Your task to perform on an android device: Set the phone to "Do not disturb". Image 0: 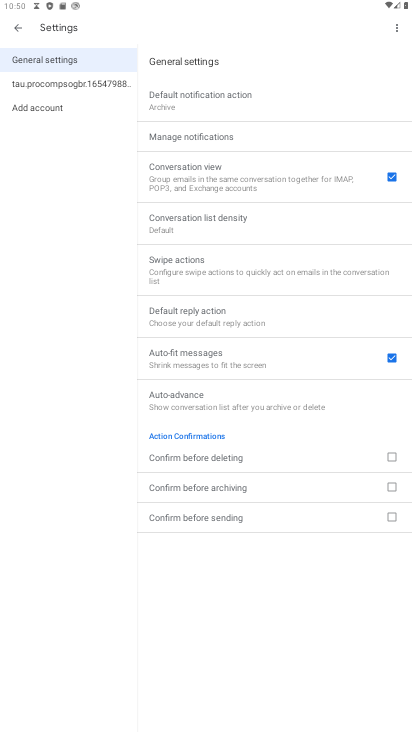
Step 0: press home button
Your task to perform on an android device: Set the phone to "Do not disturb". Image 1: 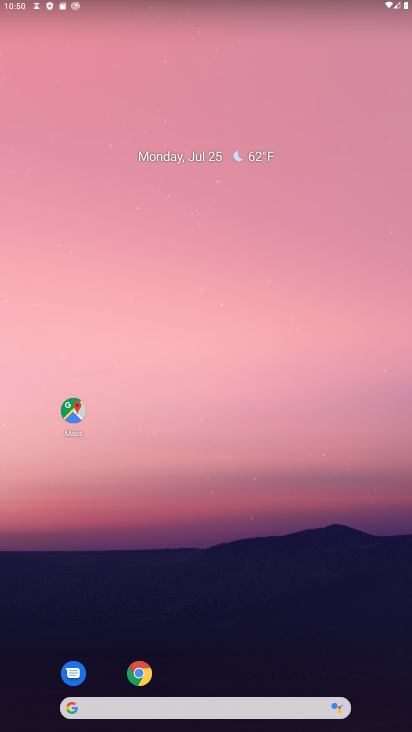
Step 1: drag from (232, 1) to (216, 443)
Your task to perform on an android device: Set the phone to "Do not disturb". Image 2: 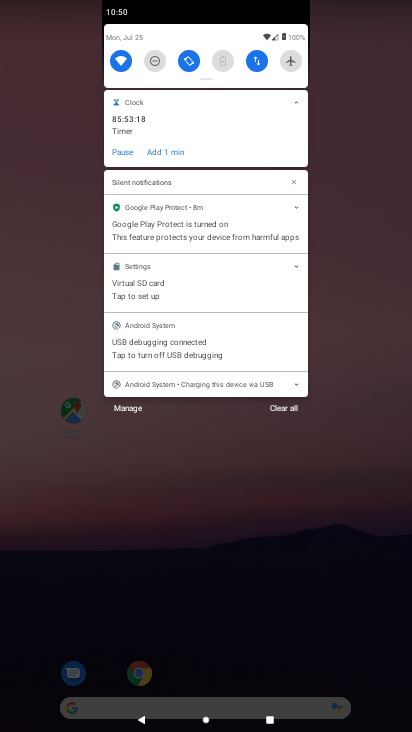
Step 2: click (154, 60)
Your task to perform on an android device: Set the phone to "Do not disturb". Image 3: 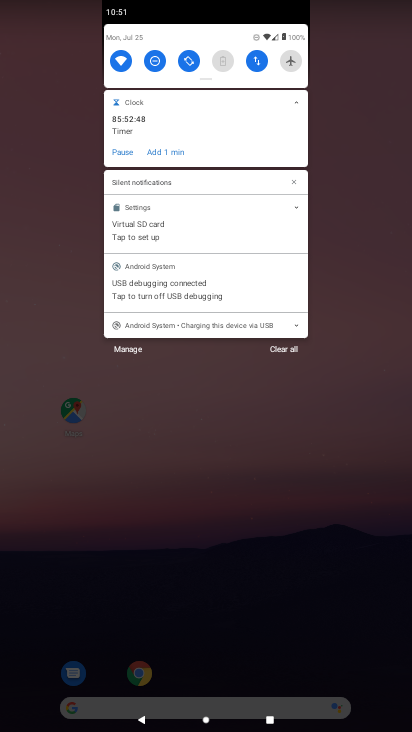
Step 3: task complete